Your task to perform on an android device: turn off javascript in the chrome app Image 0: 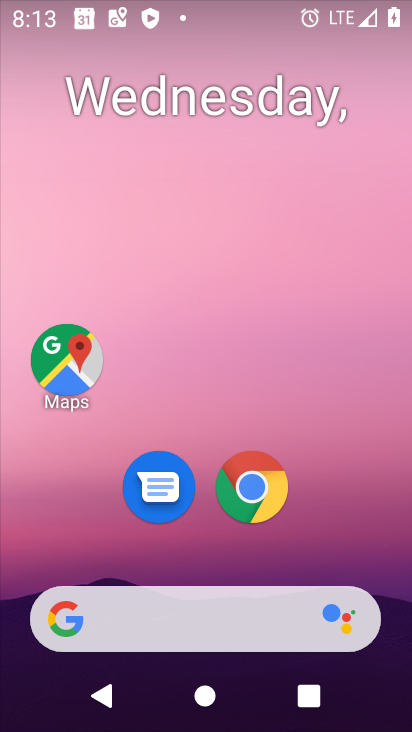
Step 0: click (259, 489)
Your task to perform on an android device: turn off javascript in the chrome app Image 1: 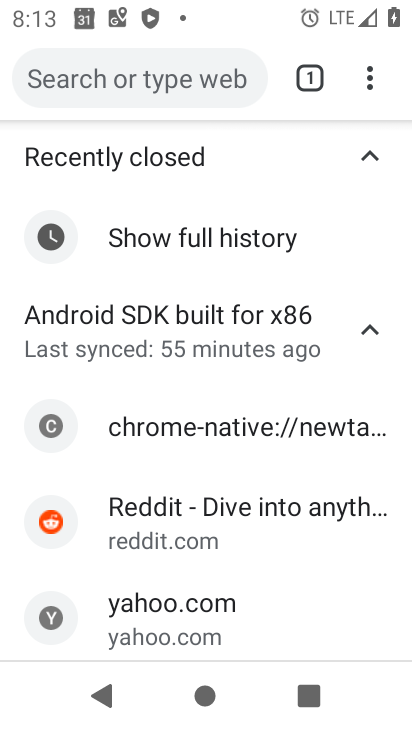
Step 1: click (363, 76)
Your task to perform on an android device: turn off javascript in the chrome app Image 2: 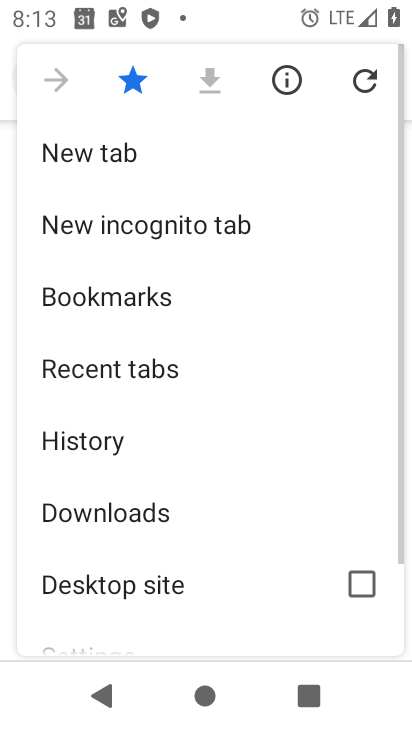
Step 2: drag from (213, 464) to (200, 134)
Your task to perform on an android device: turn off javascript in the chrome app Image 3: 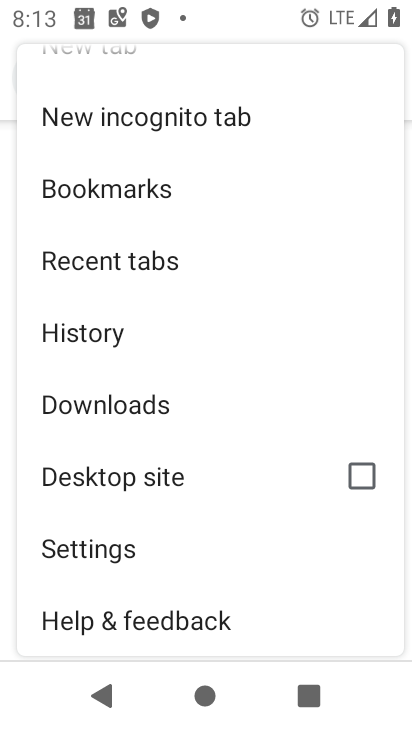
Step 3: click (70, 554)
Your task to perform on an android device: turn off javascript in the chrome app Image 4: 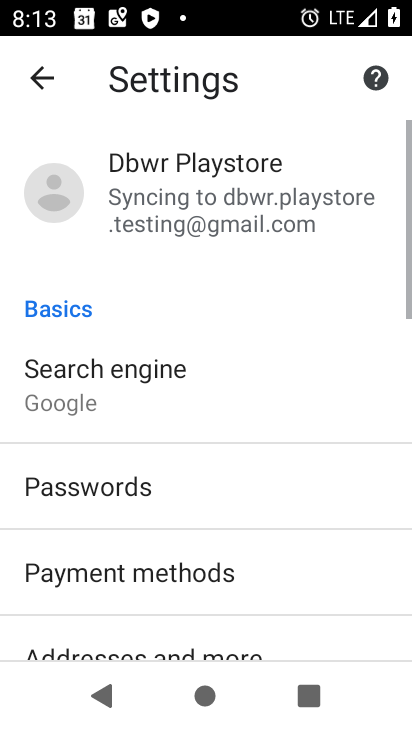
Step 4: drag from (198, 605) to (195, 105)
Your task to perform on an android device: turn off javascript in the chrome app Image 5: 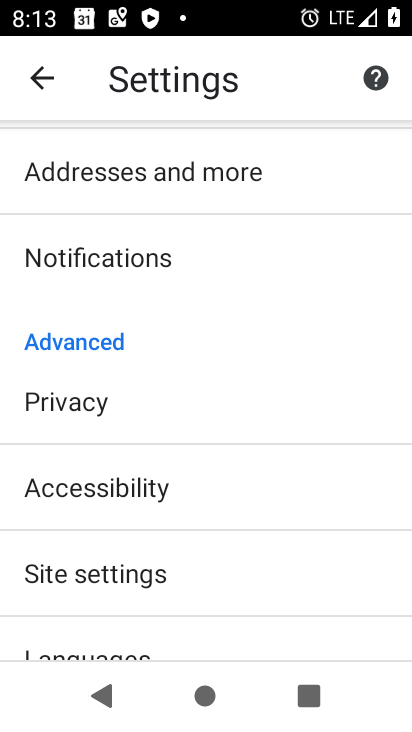
Step 5: click (125, 574)
Your task to perform on an android device: turn off javascript in the chrome app Image 6: 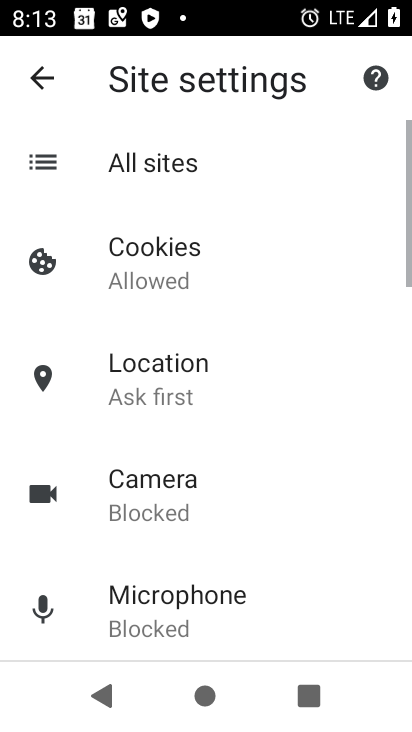
Step 6: drag from (197, 578) to (186, 227)
Your task to perform on an android device: turn off javascript in the chrome app Image 7: 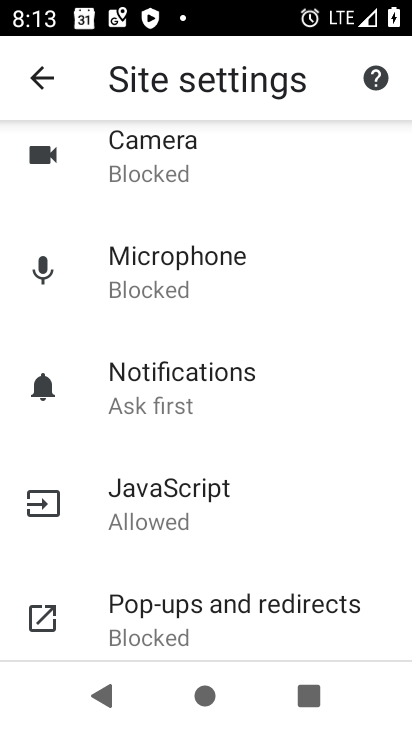
Step 7: click (150, 502)
Your task to perform on an android device: turn off javascript in the chrome app Image 8: 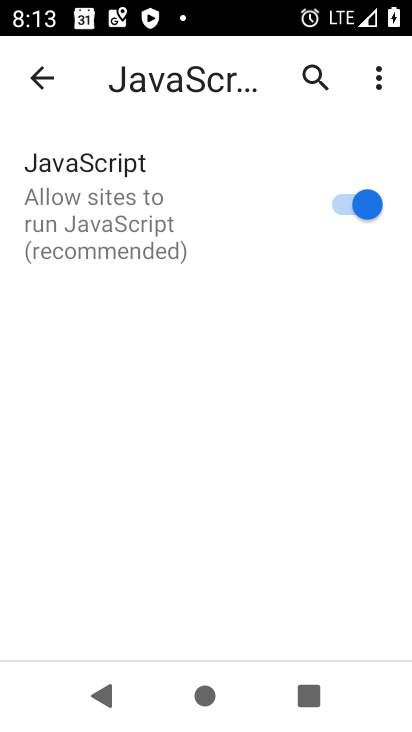
Step 8: click (369, 221)
Your task to perform on an android device: turn off javascript in the chrome app Image 9: 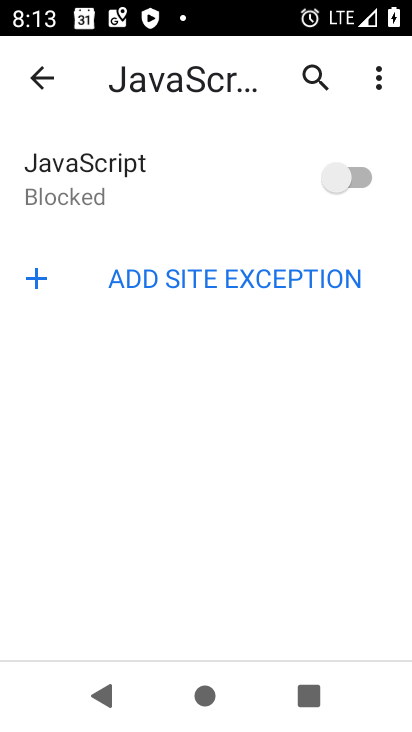
Step 9: task complete